Your task to perform on an android device: What's US dollar exchange rate against the Chinese Yuan? Image 0: 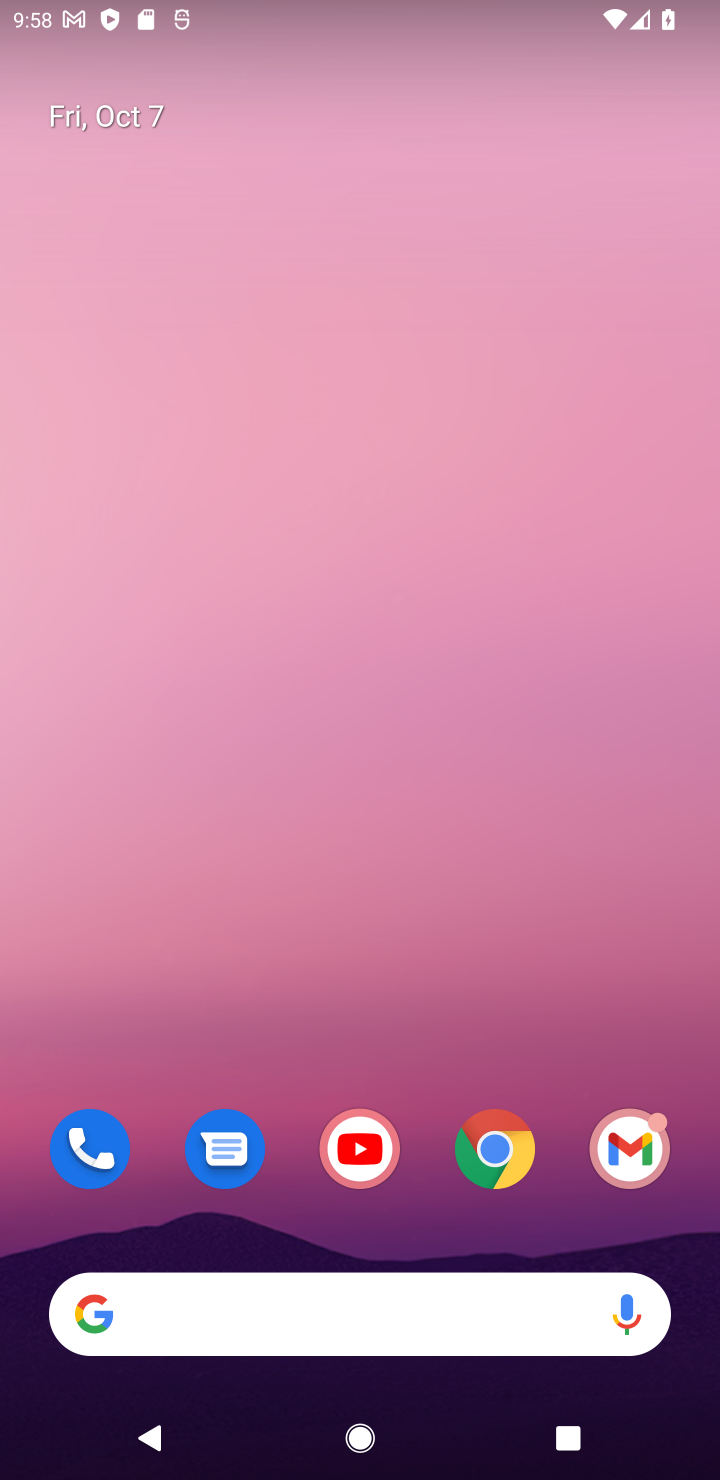
Step 0: click (398, 1304)
Your task to perform on an android device: What's US dollar exchange rate against the Chinese Yuan? Image 1: 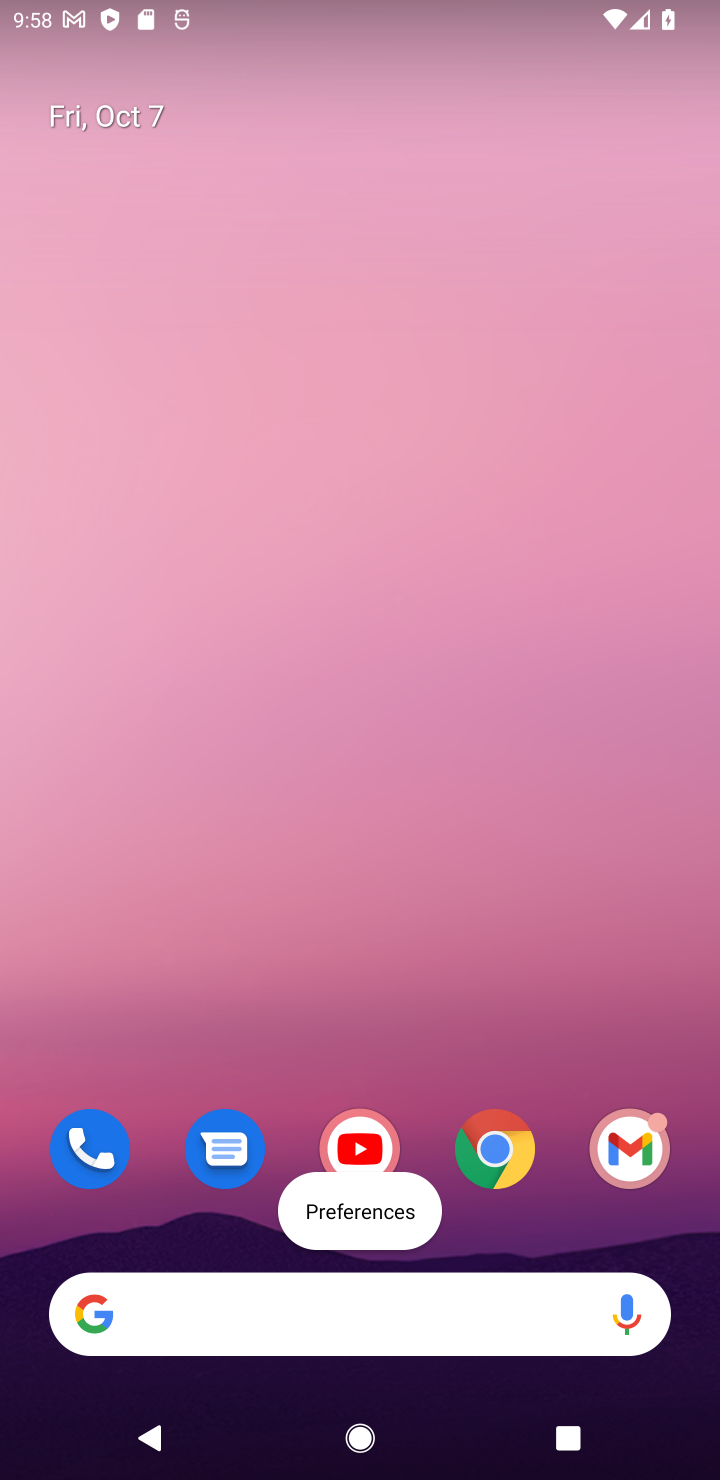
Step 1: click (389, 1304)
Your task to perform on an android device: What's US dollar exchange rate against the Chinese Yuan? Image 2: 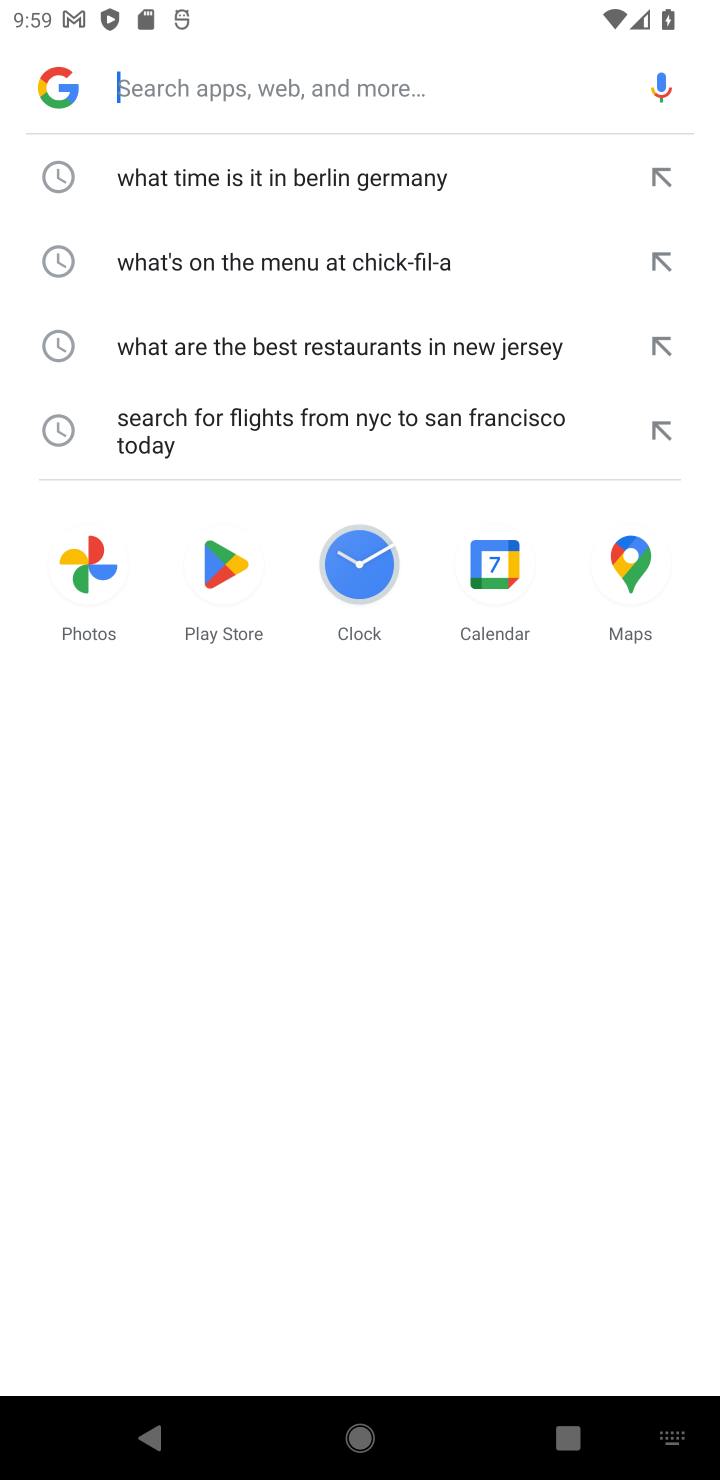
Step 2: type "What's US dollar exchange rate against the Chinese Yuan?"
Your task to perform on an android device: What's US dollar exchange rate against the Chinese Yuan? Image 3: 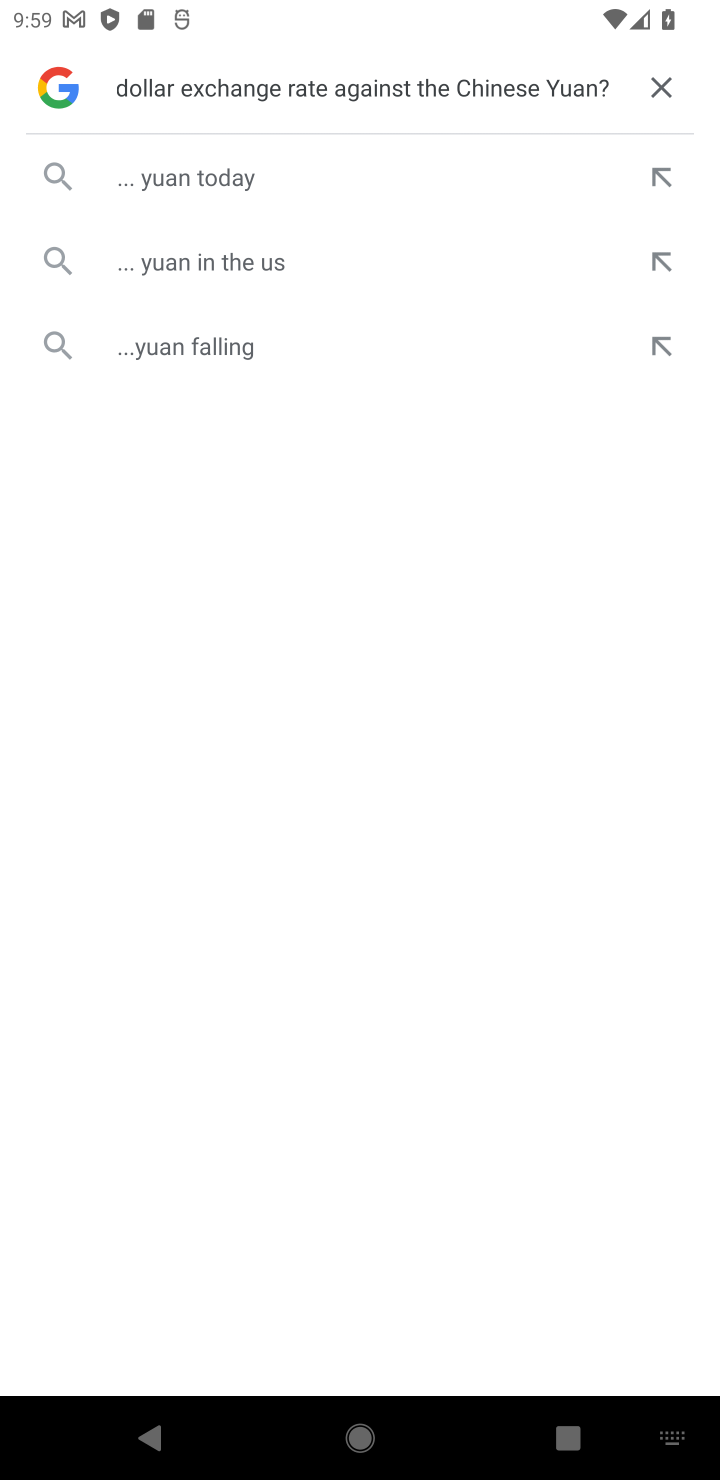
Step 3: click (208, 184)
Your task to perform on an android device: What's US dollar exchange rate against the Chinese Yuan? Image 4: 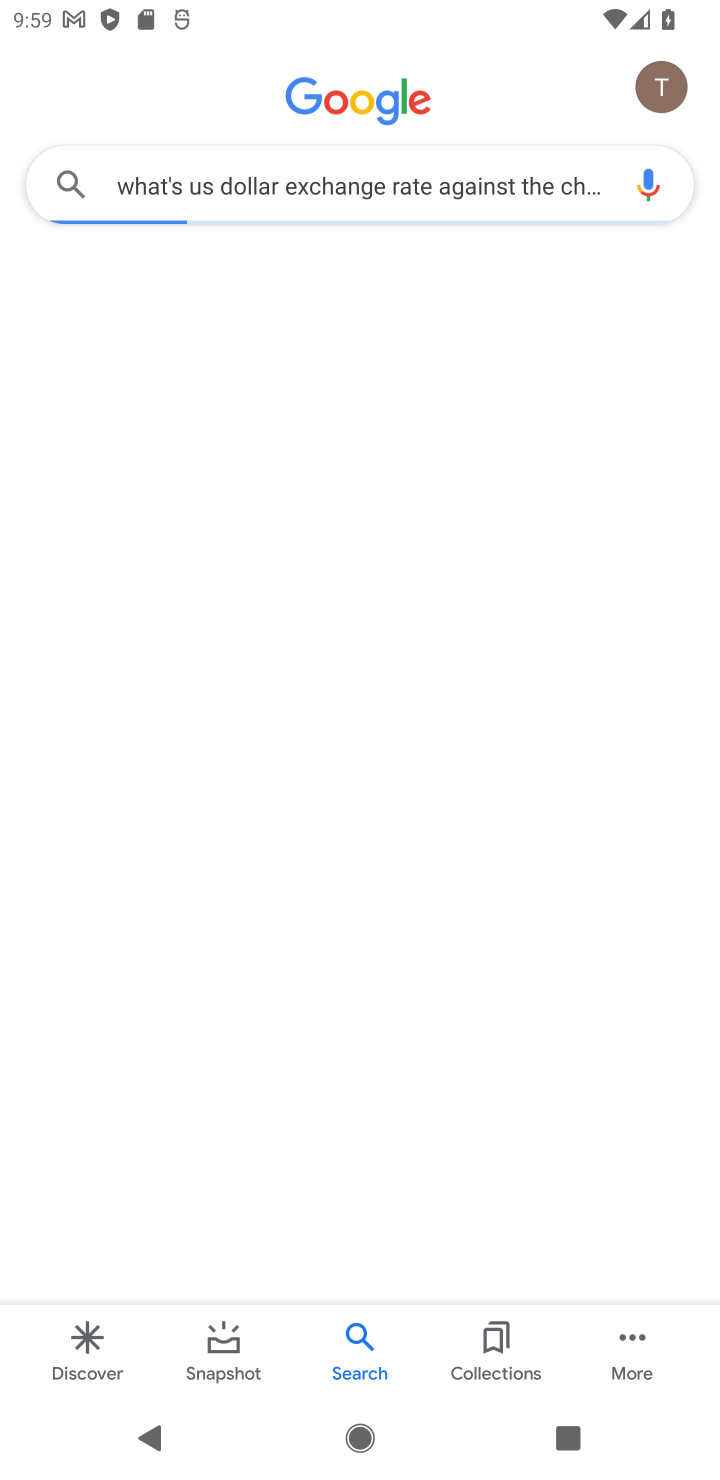
Step 4: task complete